Your task to perform on an android device: add a contact in the contacts app Image 0: 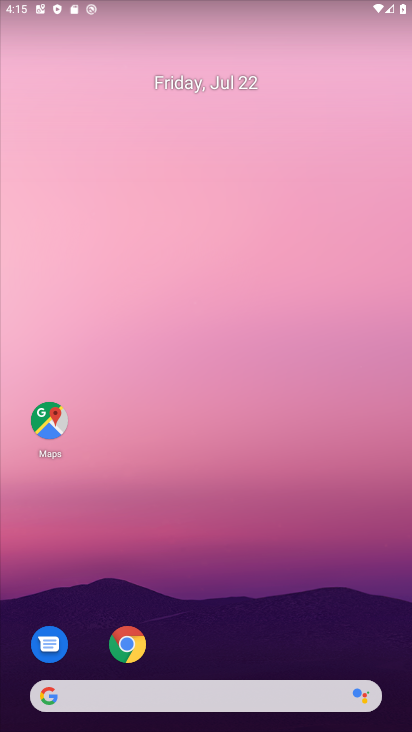
Step 0: drag from (187, 652) to (255, 104)
Your task to perform on an android device: add a contact in the contacts app Image 1: 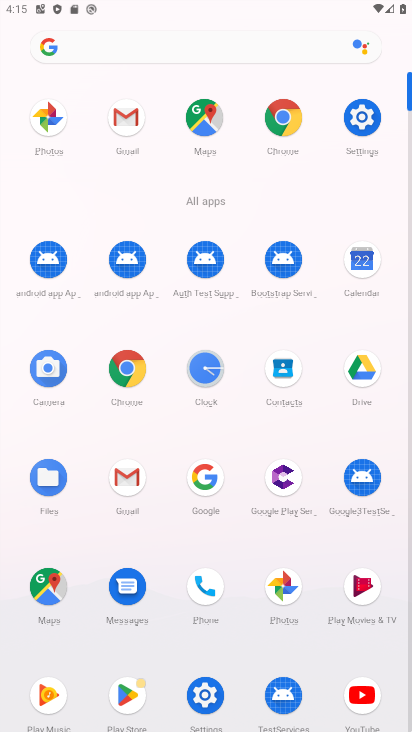
Step 1: click (283, 369)
Your task to perform on an android device: add a contact in the contacts app Image 2: 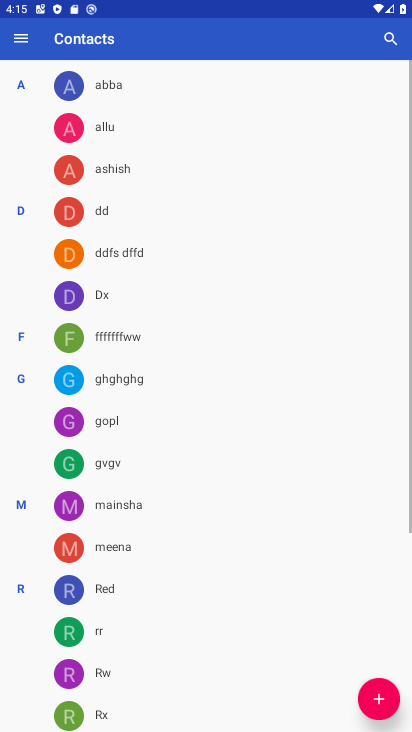
Step 2: click (378, 697)
Your task to perform on an android device: add a contact in the contacts app Image 3: 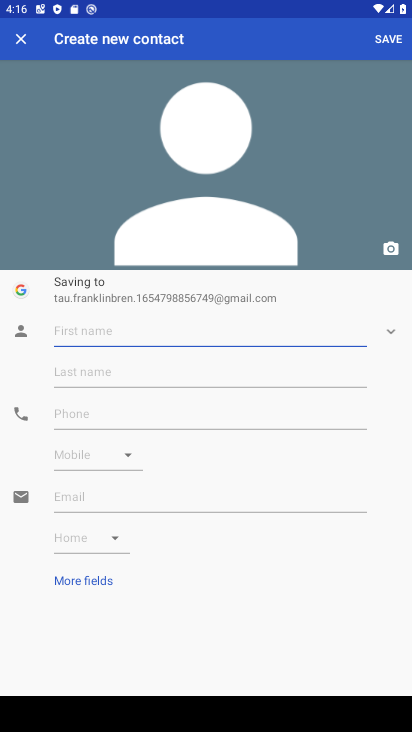
Step 3: click (176, 333)
Your task to perform on an android device: add a contact in the contacts app Image 4: 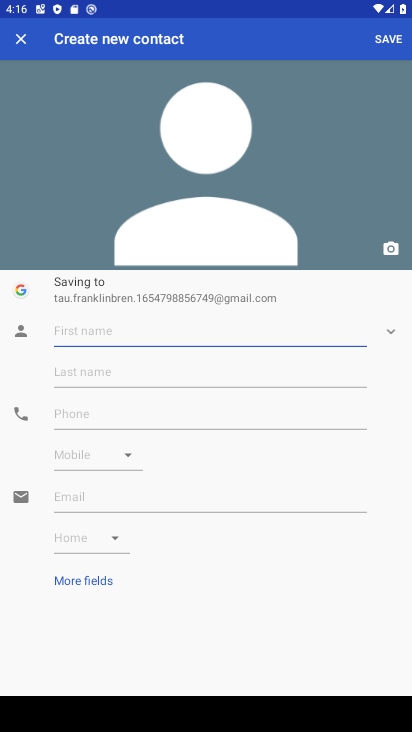
Step 4: type "jhagxhja"
Your task to perform on an android device: add a contact in the contacts app Image 5: 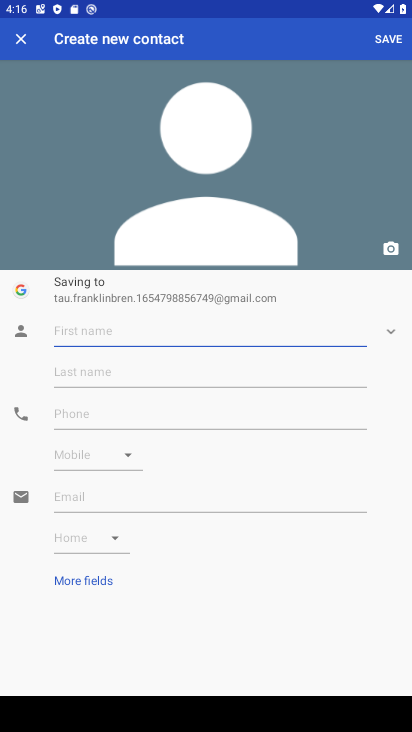
Step 5: click (168, 418)
Your task to perform on an android device: add a contact in the contacts app Image 6: 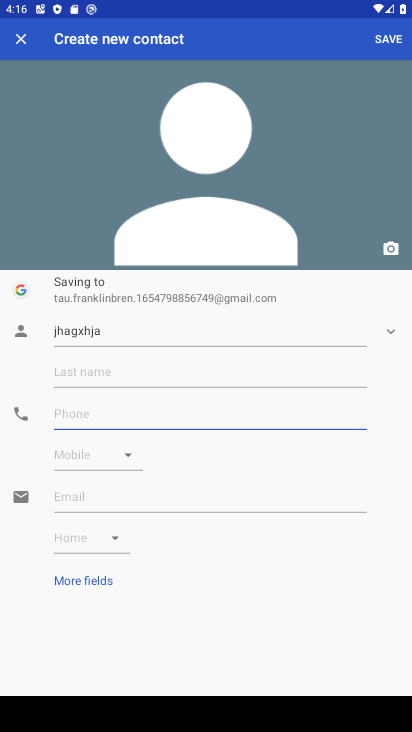
Step 6: type "785874877"
Your task to perform on an android device: add a contact in the contacts app Image 7: 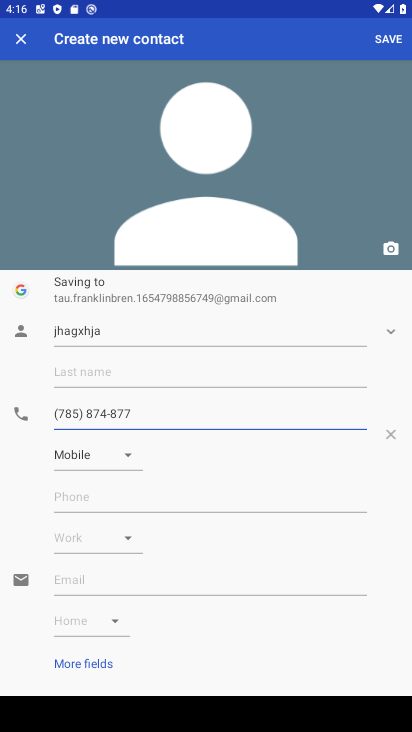
Step 7: click (388, 40)
Your task to perform on an android device: add a contact in the contacts app Image 8: 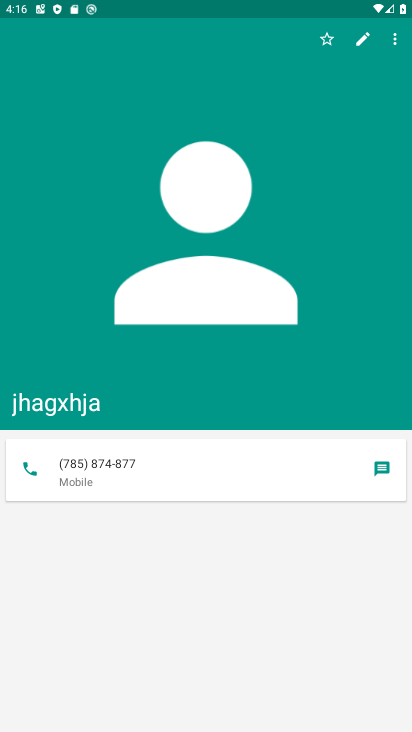
Step 8: task complete